Your task to perform on an android device: Turn on the flashlight Image 0: 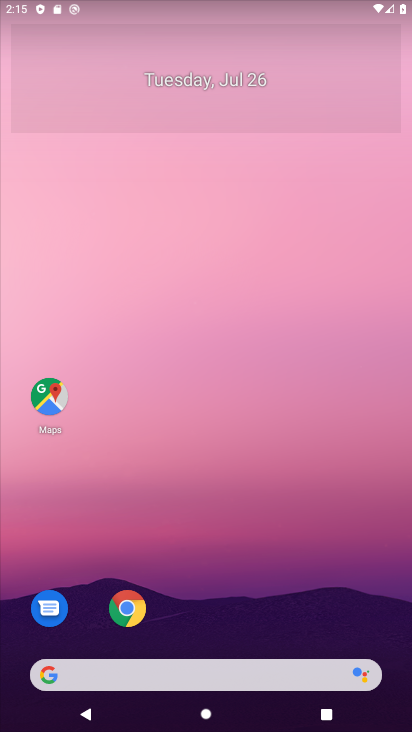
Step 0: drag from (268, 494) to (289, 173)
Your task to perform on an android device: Turn on the flashlight Image 1: 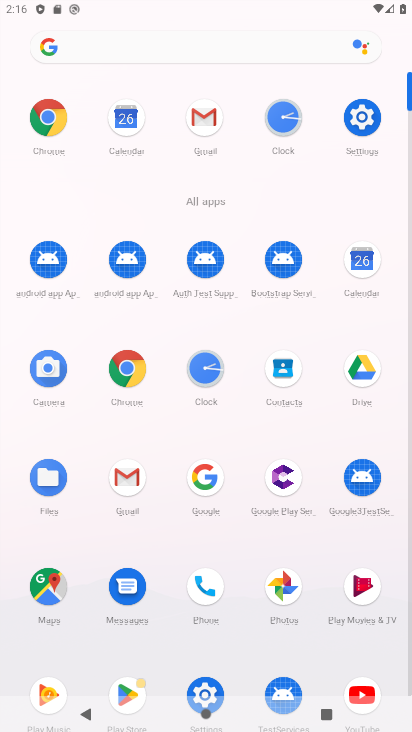
Step 1: task complete